Your task to perform on an android device: Open display settings Image 0: 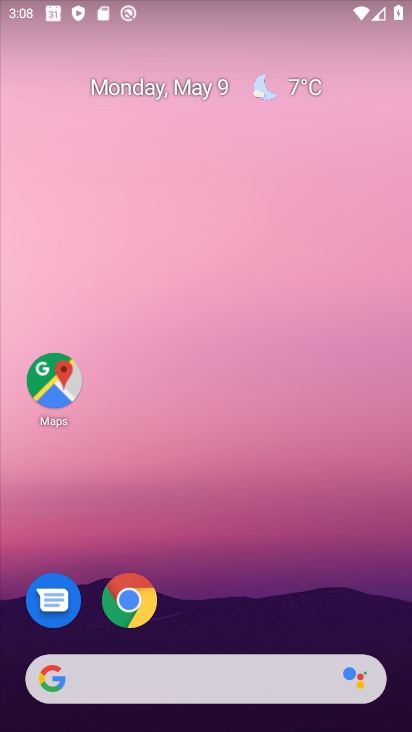
Step 0: drag from (323, 534) to (261, 46)
Your task to perform on an android device: Open display settings Image 1: 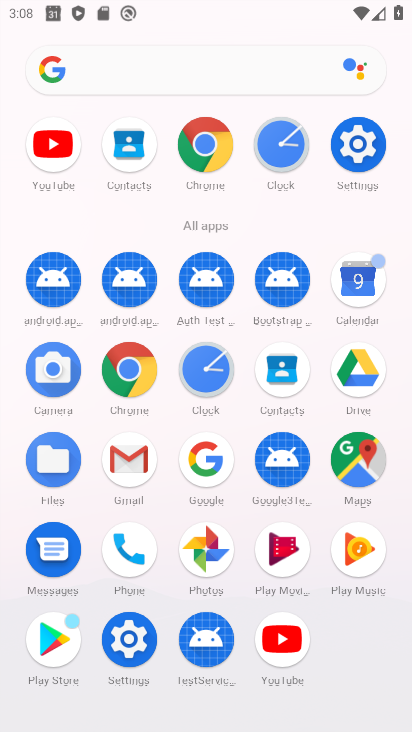
Step 1: click (128, 631)
Your task to perform on an android device: Open display settings Image 2: 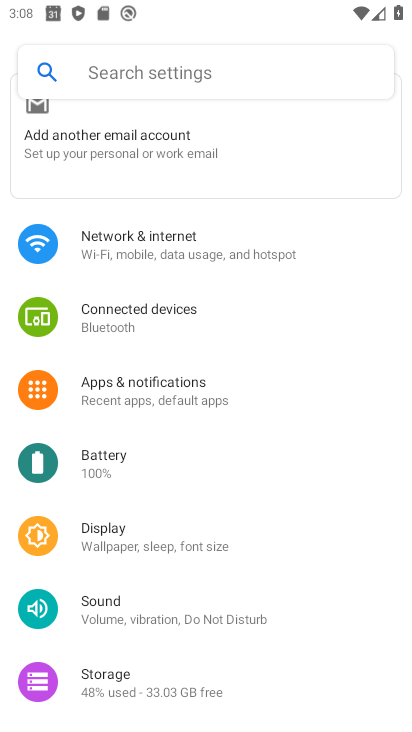
Step 2: drag from (237, 548) to (278, 259)
Your task to perform on an android device: Open display settings Image 3: 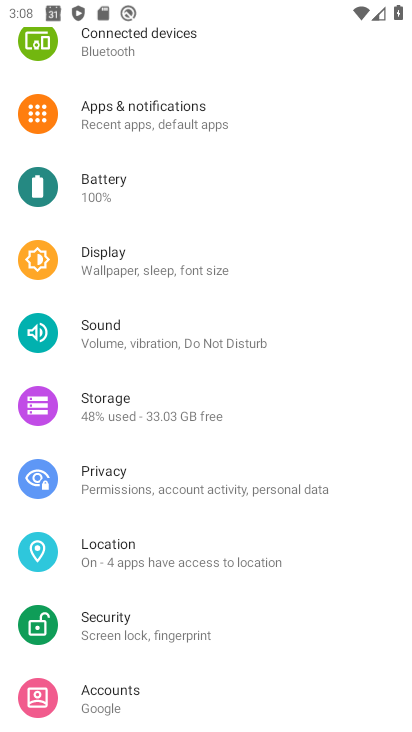
Step 3: drag from (233, 526) to (253, 241)
Your task to perform on an android device: Open display settings Image 4: 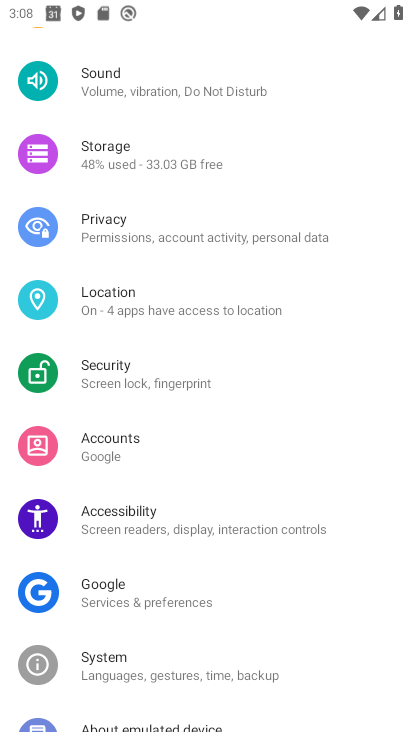
Step 4: drag from (210, 556) to (257, 237)
Your task to perform on an android device: Open display settings Image 5: 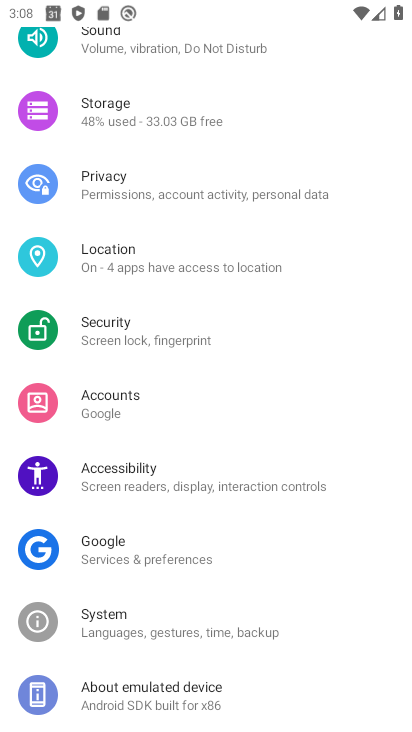
Step 5: drag from (246, 141) to (171, 561)
Your task to perform on an android device: Open display settings Image 6: 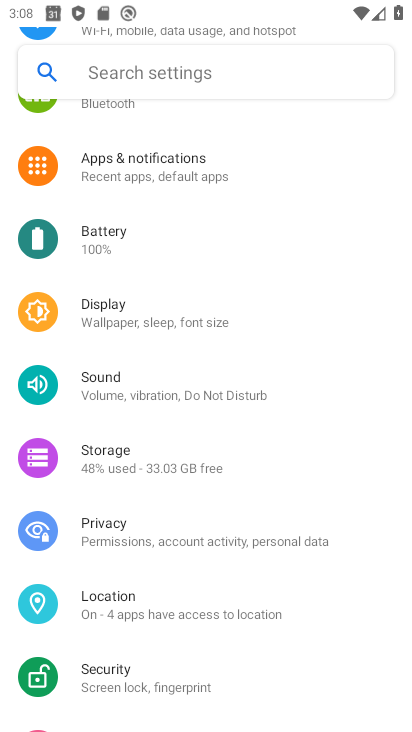
Step 6: click (138, 304)
Your task to perform on an android device: Open display settings Image 7: 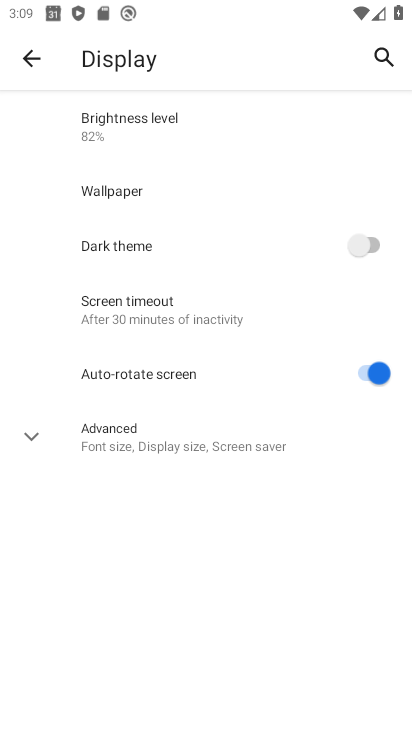
Step 7: click (16, 435)
Your task to perform on an android device: Open display settings Image 8: 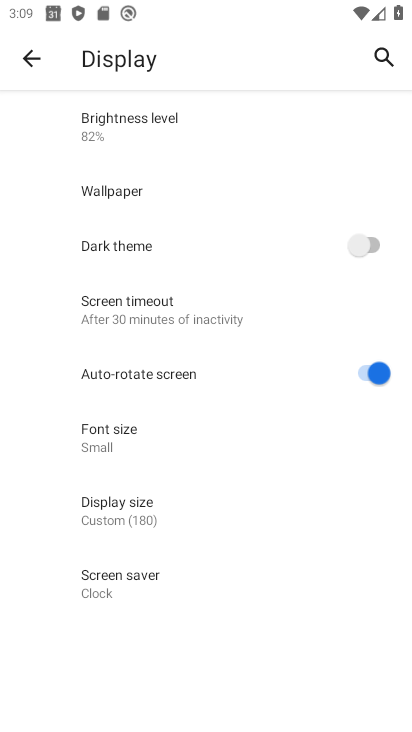
Step 8: task complete